Your task to perform on an android device: Go to Google maps Image 0: 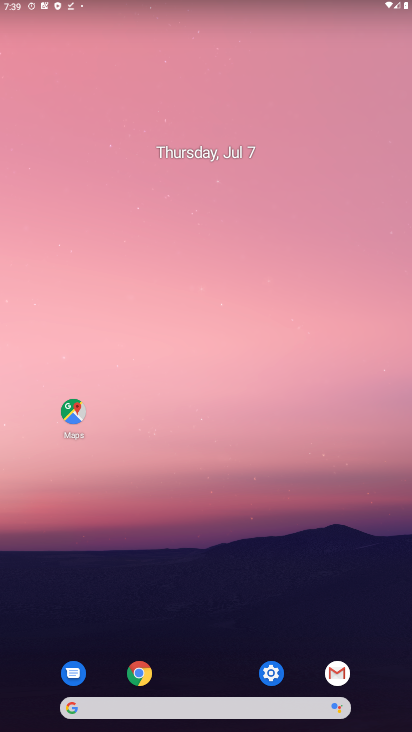
Step 0: click (69, 413)
Your task to perform on an android device: Go to Google maps Image 1: 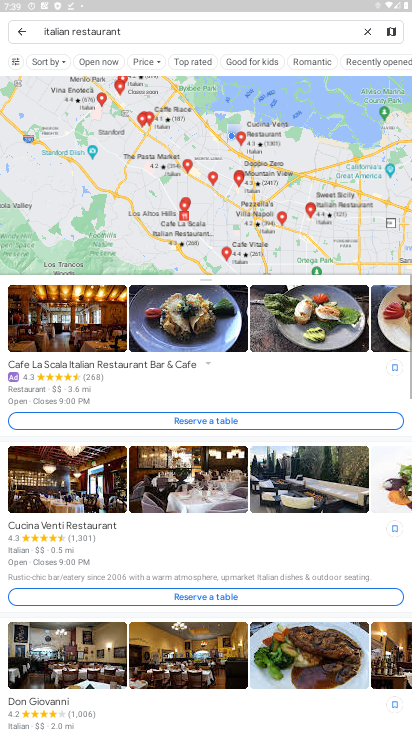
Step 1: click (23, 30)
Your task to perform on an android device: Go to Google maps Image 2: 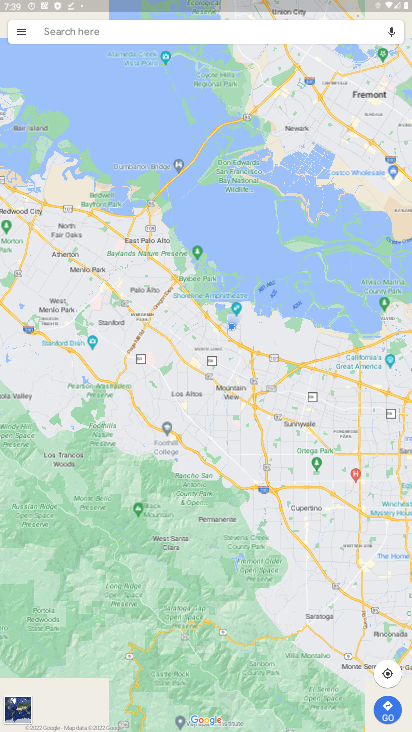
Step 2: click (387, 678)
Your task to perform on an android device: Go to Google maps Image 3: 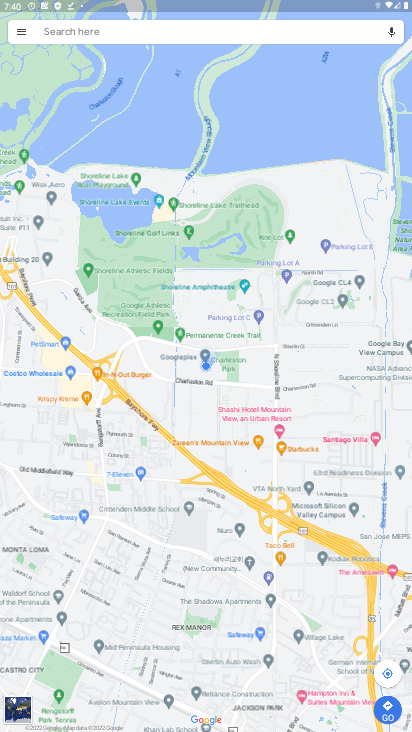
Step 3: task complete